Your task to perform on an android device: Search for pizza restaurants on Maps Image 0: 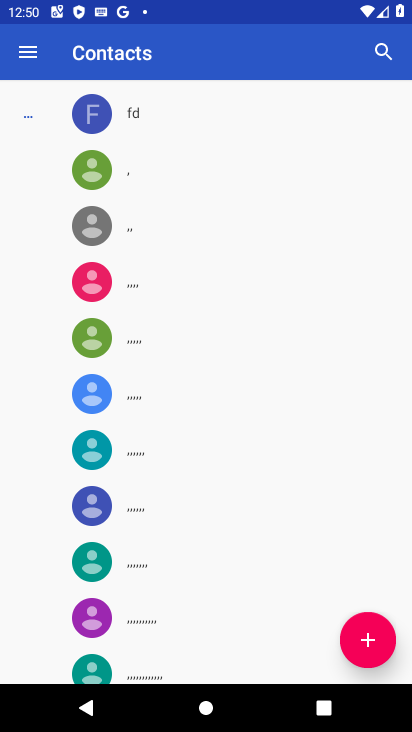
Step 0: press home button
Your task to perform on an android device: Search for pizza restaurants on Maps Image 1: 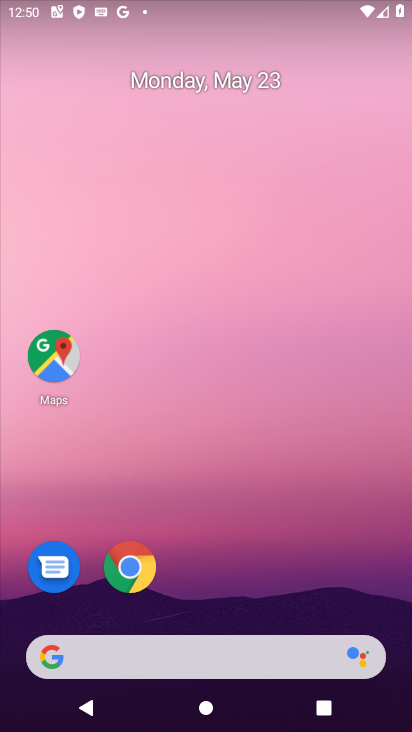
Step 1: drag from (256, 614) to (316, 90)
Your task to perform on an android device: Search for pizza restaurants on Maps Image 2: 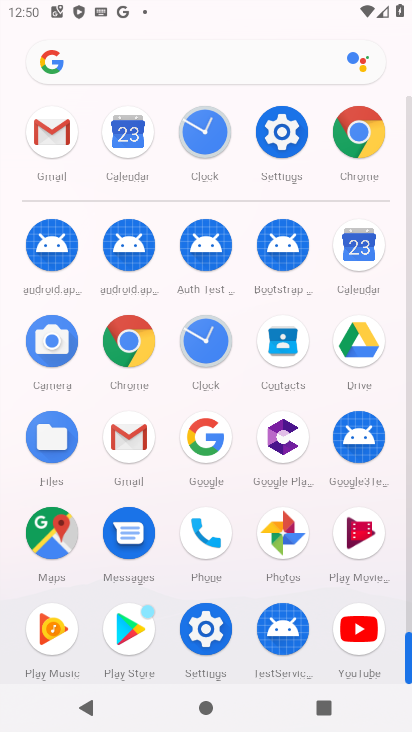
Step 2: click (47, 535)
Your task to perform on an android device: Search for pizza restaurants on Maps Image 3: 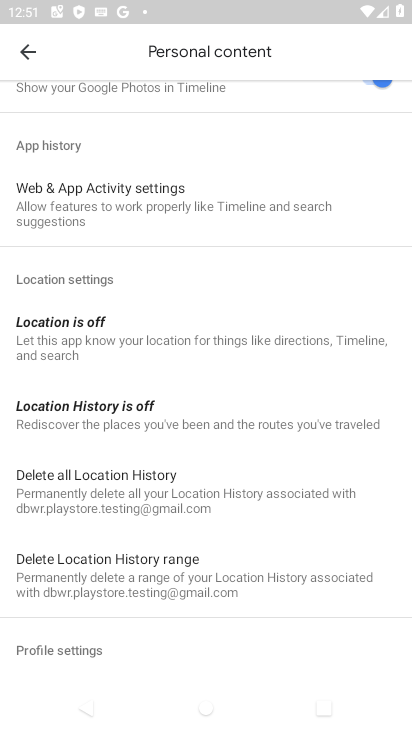
Step 3: click (25, 69)
Your task to perform on an android device: Search for pizza restaurants on Maps Image 4: 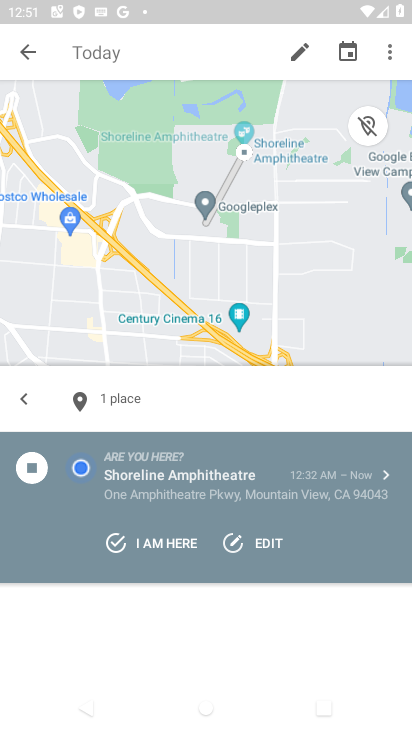
Step 4: click (25, 69)
Your task to perform on an android device: Search for pizza restaurants on Maps Image 5: 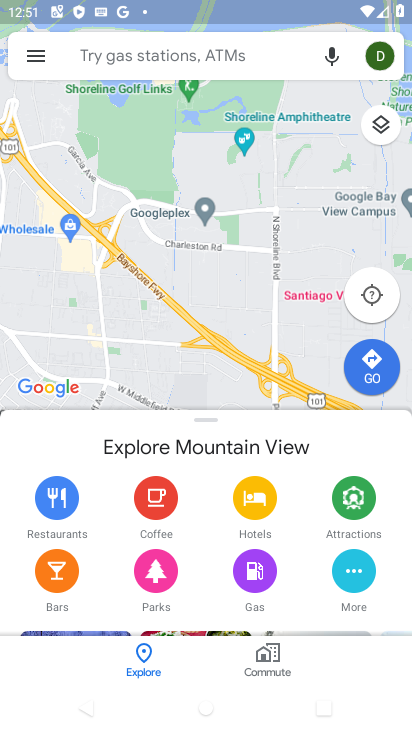
Step 5: click (93, 61)
Your task to perform on an android device: Search for pizza restaurants on Maps Image 6: 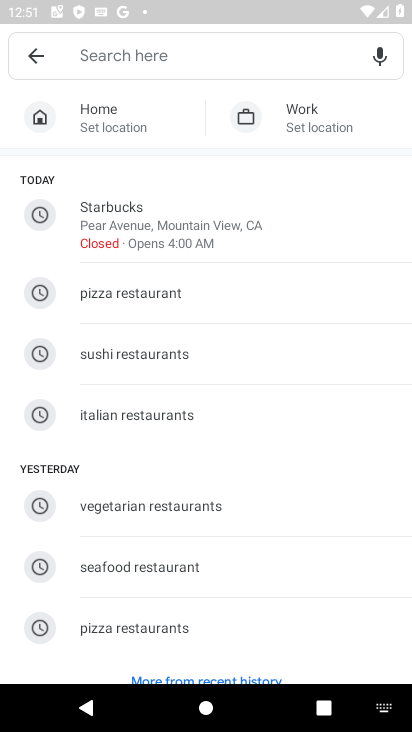
Step 6: click (179, 302)
Your task to perform on an android device: Search for pizza restaurants on Maps Image 7: 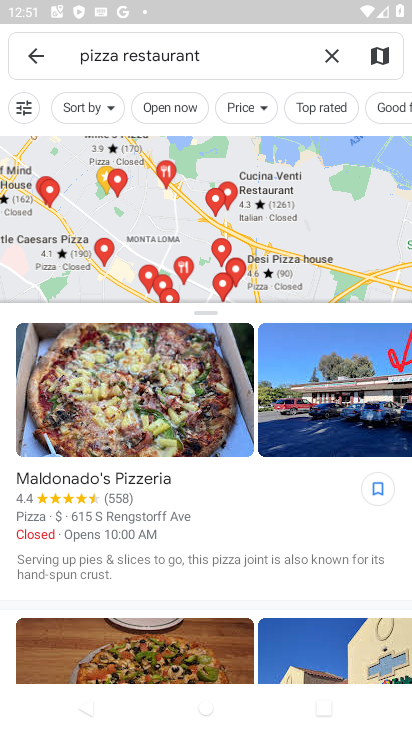
Step 7: task complete